Your task to perform on an android device: Search for vegetarian restaurants on Maps Image 0: 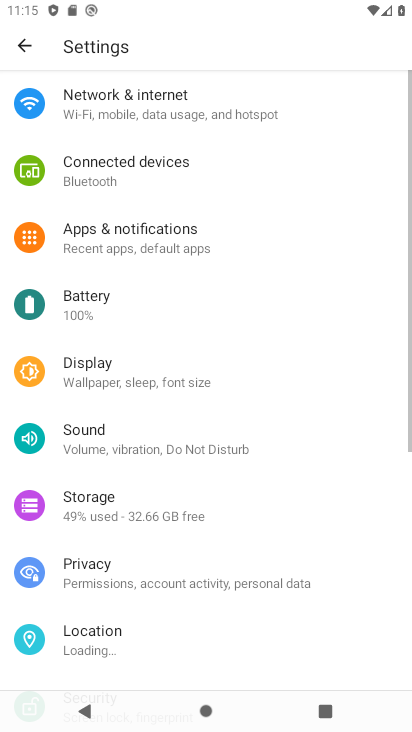
Step 0: press home button
Your task to perform on an android device: Search for vegetarian restaurants on Maps Image 1: 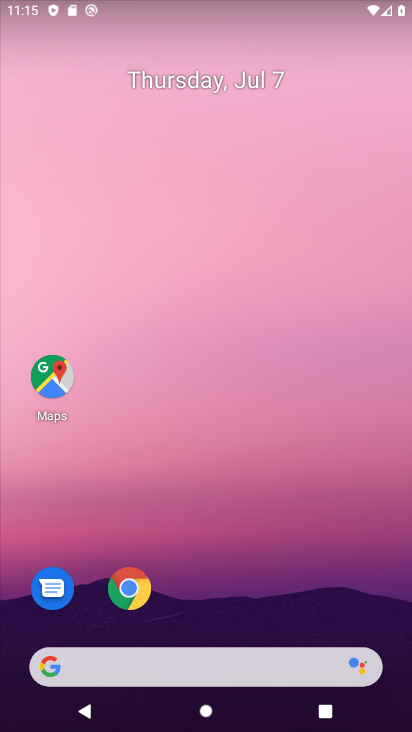
Step 1: click (52, 378)
Your task to perform on an android device: Search for vegetarian restaurants on Maps Image 2: 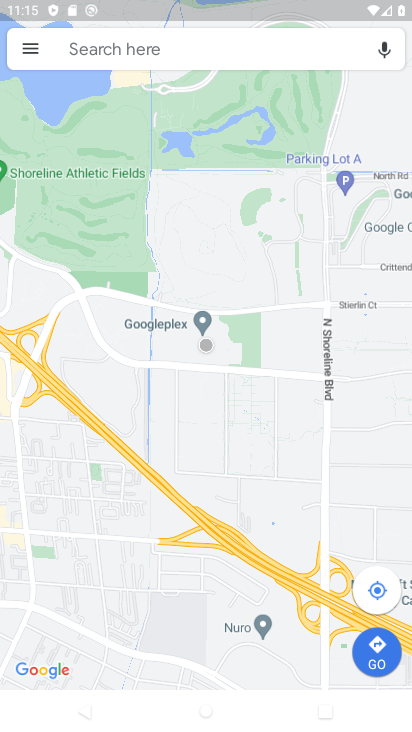
Step 2: click (151, 35)
Your task to perform on an android device: Search for vegetarian restaurants on Maps Image 3: 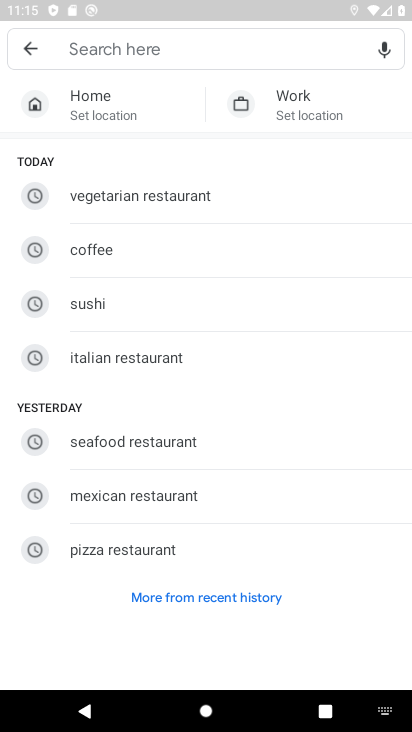
Step 3: click (205, 195)
Your task to perform on an android device: Search for vegetarian restaurants on Maps Image 4: 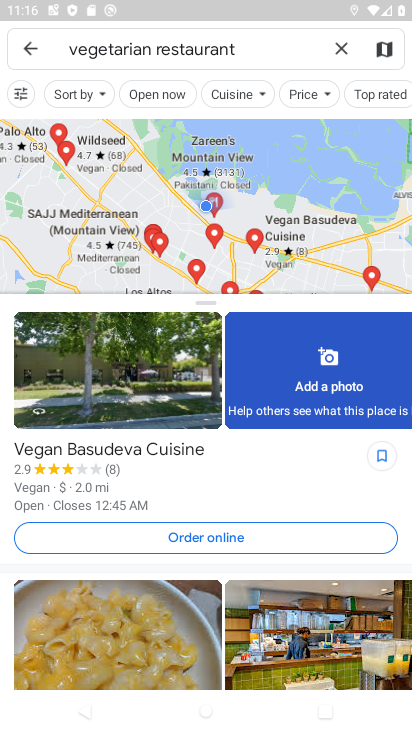
Step 4: task complete